Your task to perform on an android device: What's on my calendar tomorrow? Image 0: 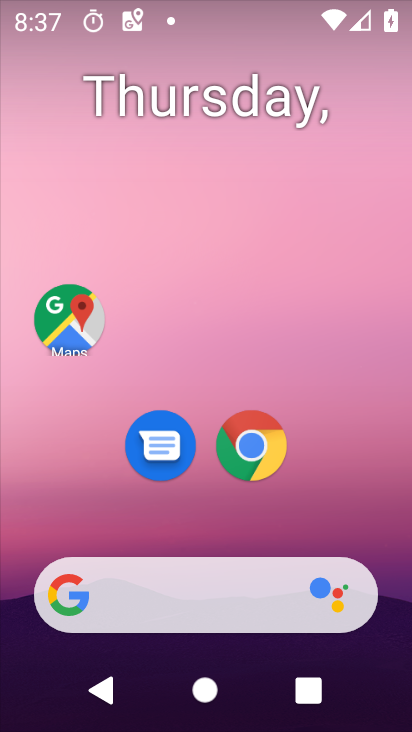
Step 0: drag from (25, 532) to (207, 292)
Your task to perform on an android device: What's on my calendar tomorrow? Image 1: 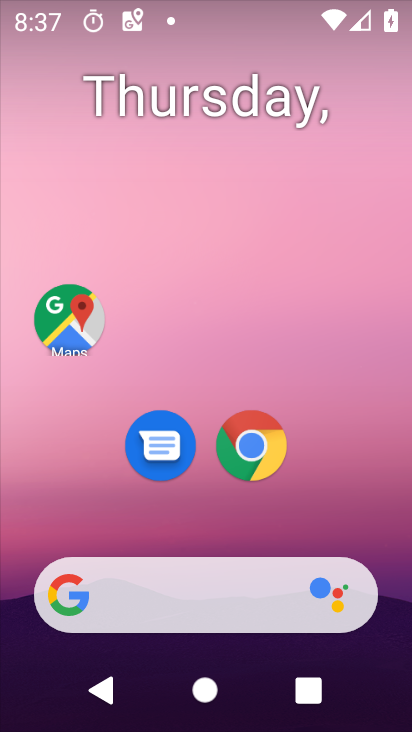
Step 1: drag from (66, 489) to (276, 223)
Your task to perform on an android device: What's on my calendar tomorrow? Image 2: 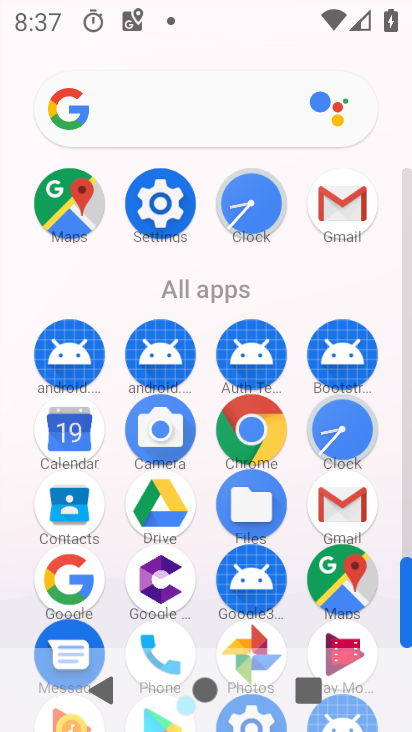
Step 2: click (88, 434)
Your task to perform on an android device: What's on my calendar tomorrow? Image 3: 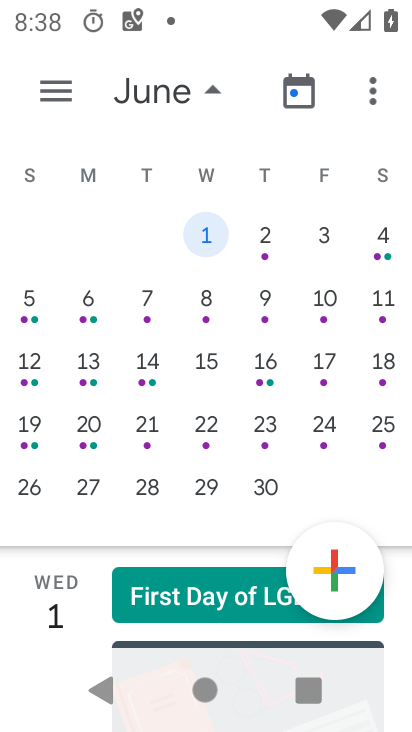
Step 3: drag from (162, 319) to (403, 323)
Your task to perform on an android device: What's on my calendar tomorrow? Image 4: 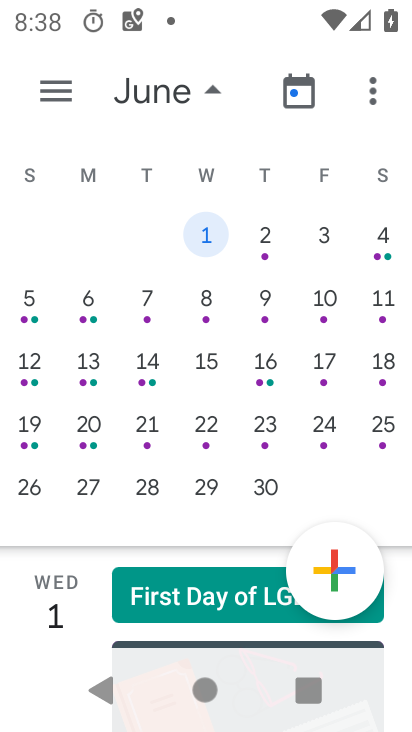
Step 4: drag from (67, 331) to (407, 317)
Your task to perform on an android device: What's on my calendar tomorrow? Image 5: 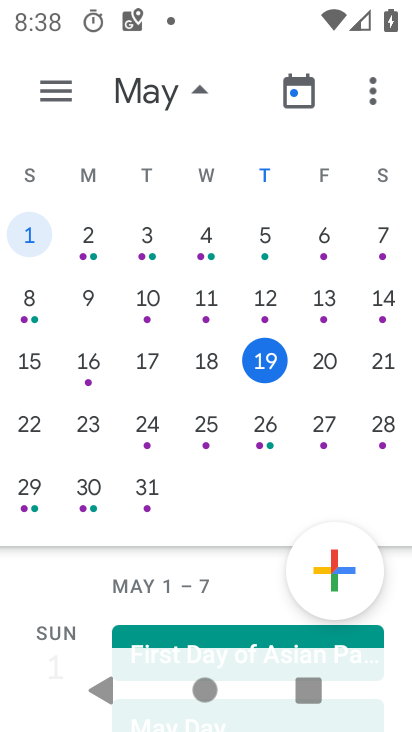
Step 5: click (320, 361)
Your task to perform on an android device: What's on my calendar tomorrow? Image 6: 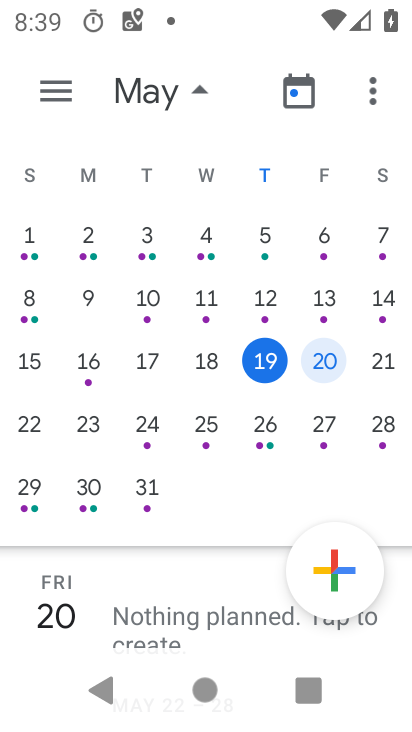
Step 6: task complete